Your task to perform on an android device: Add "logitech g502" to the cart on newegg.com, then select checkout. Image 0: 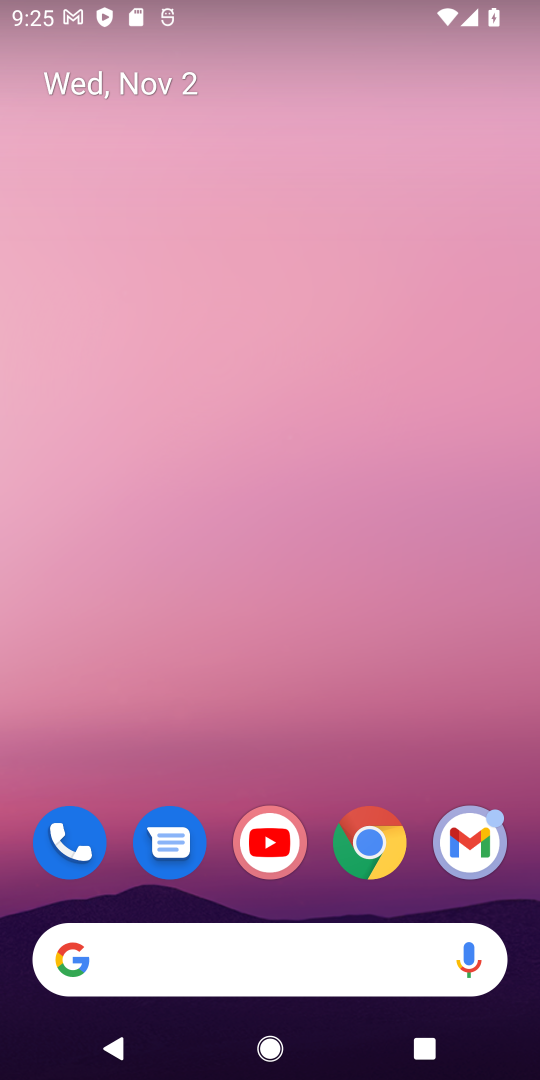
Step 0: drag from (319, 823) to (441, 193)
Your task to perform on an android device: Add "logitech g502" to the cart on newegg.com, then select checkout. Image 1: 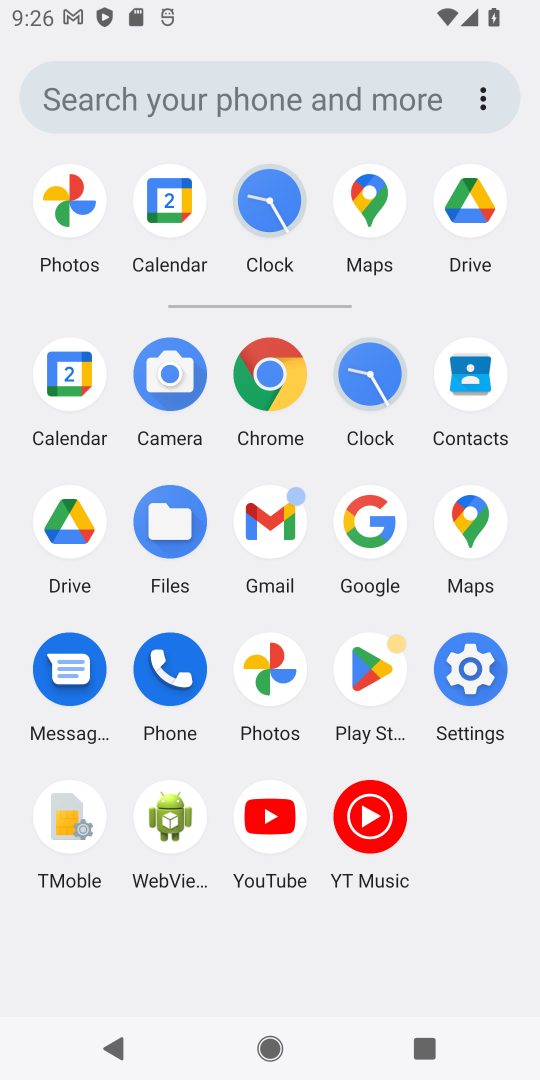
Step 1: click (357, 540)
Your task to perform on an android device: Add "logitech g502" to the cart on newegg.com, then select checkout. Image 2: 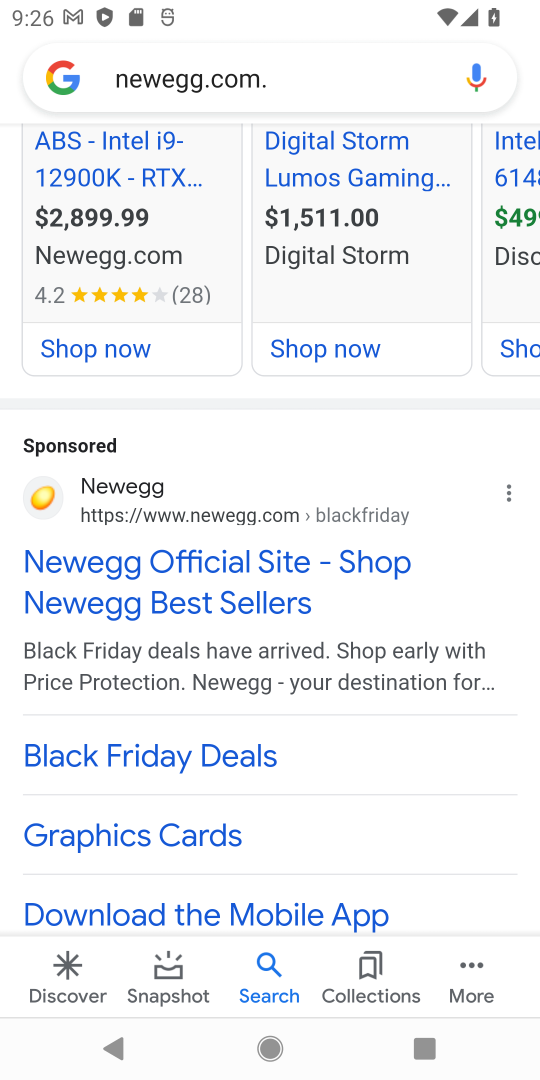
Step 2: drag from (203, 151) to (200, 714)
Your task to perform on an android device: Add "logitech g502" to the cart on newegg.com, then select checkout. Image 3: 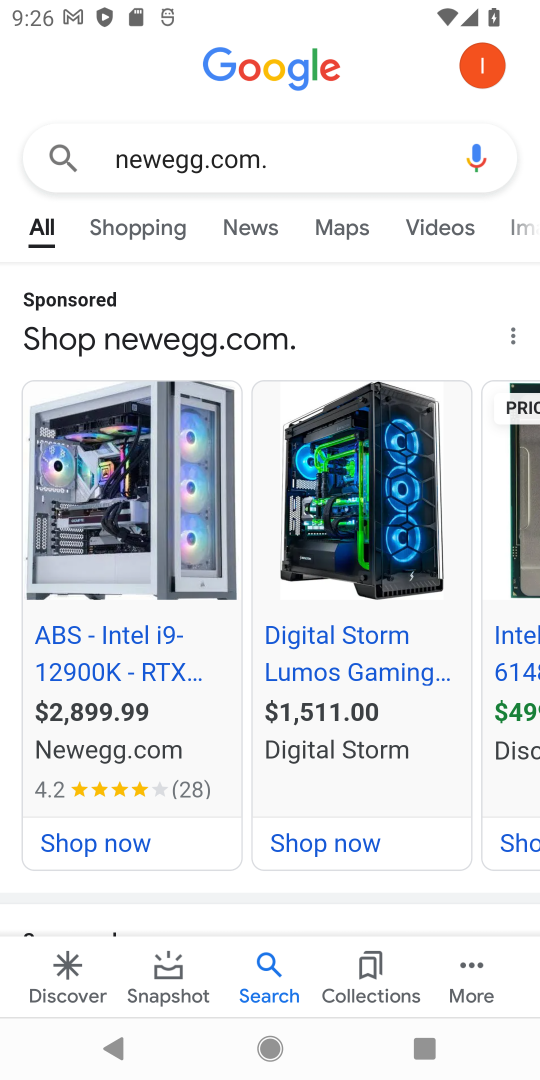
Step 3: click (193, 149)
Your task to perform on an android device: Add "logitech g502" to the cart on newegg.com, then select checkout. Image 4: 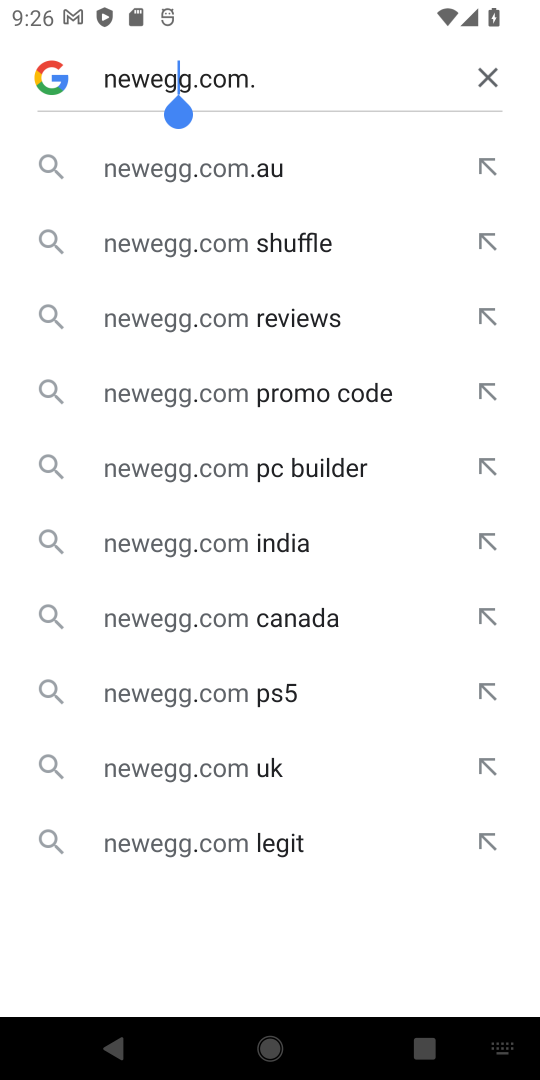
Step 4: click (474, 72)
Your task to perform on an android device: Add "logitech g502" to the cart on newegg.com, then select checkout. Image 5: 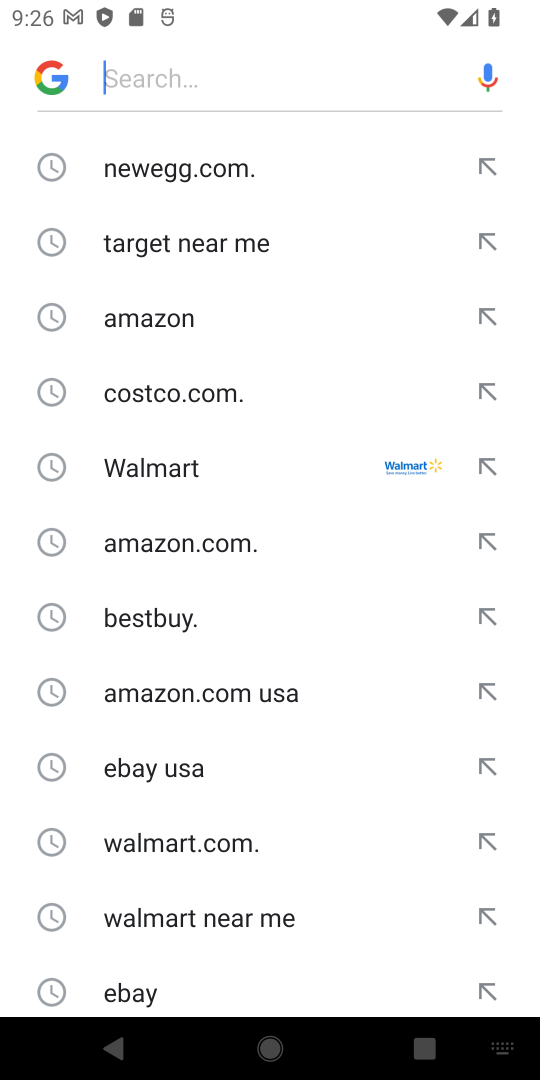
Step 5: click (177, 159)
Your task to perform on an android device: Add "logitech g502" to the cart on newegg.com, then select checkout. Image 6: 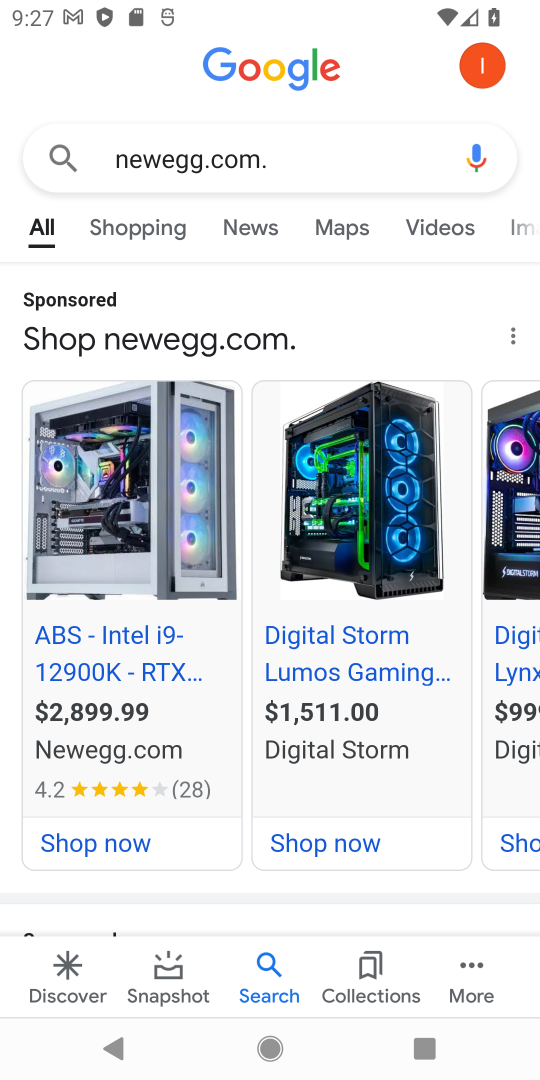
Step 6: drag from (131, 845) to (219, 284)
Your task to perform on an android device: Add "logitech g502" to the cart on newegg.com, then select checkout. Image 7: 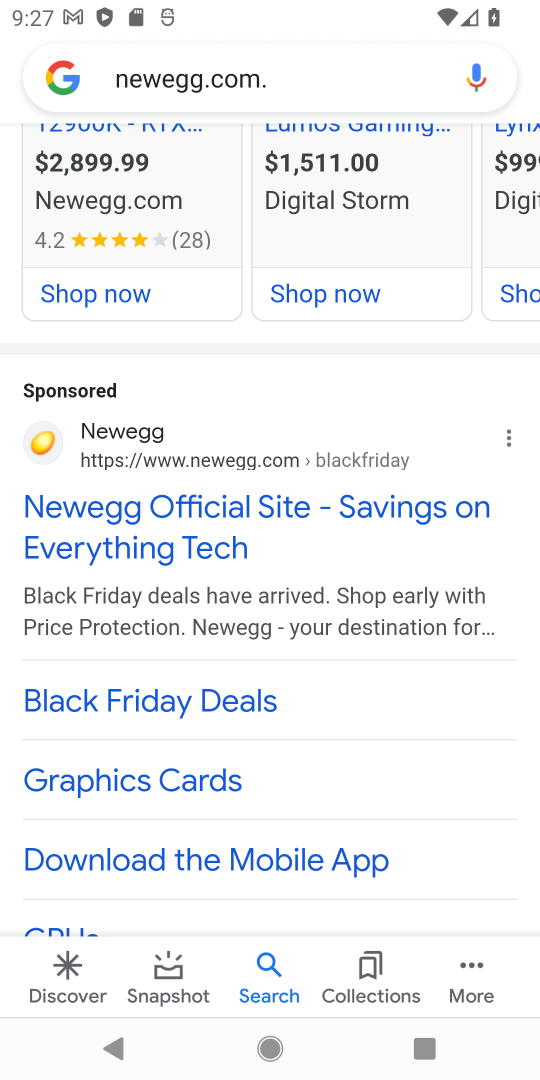
Step 7: click (43, 449)
Your task to perform on an android device: Add "logitech g502" to the cart on newegg.com, then select checkout. Image 8: 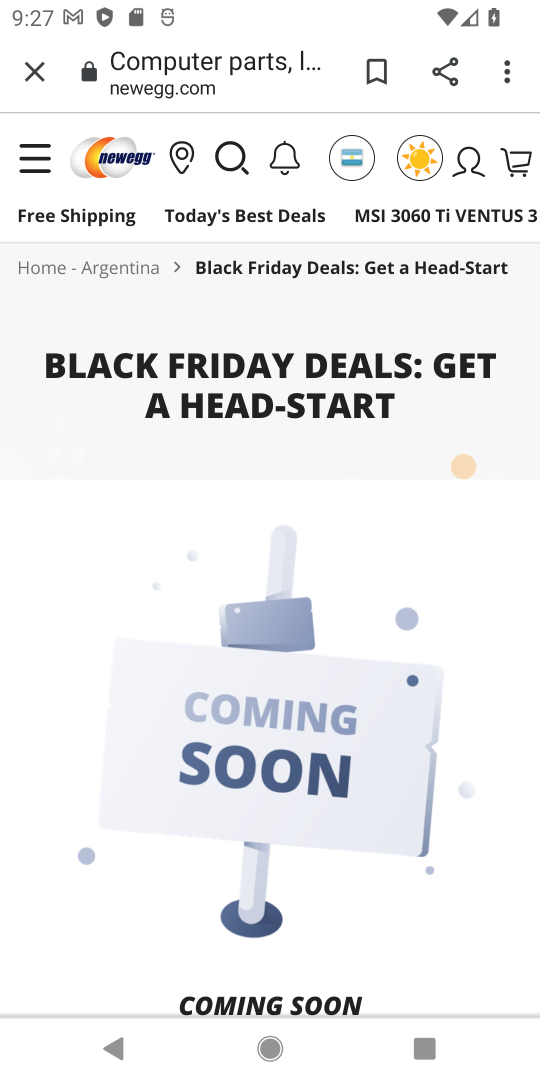
Step 8: click (233, 146)
Your task to perform on an android device: Add "logitech g502" to the cart on newegg.com, then select checkout. Image 9: 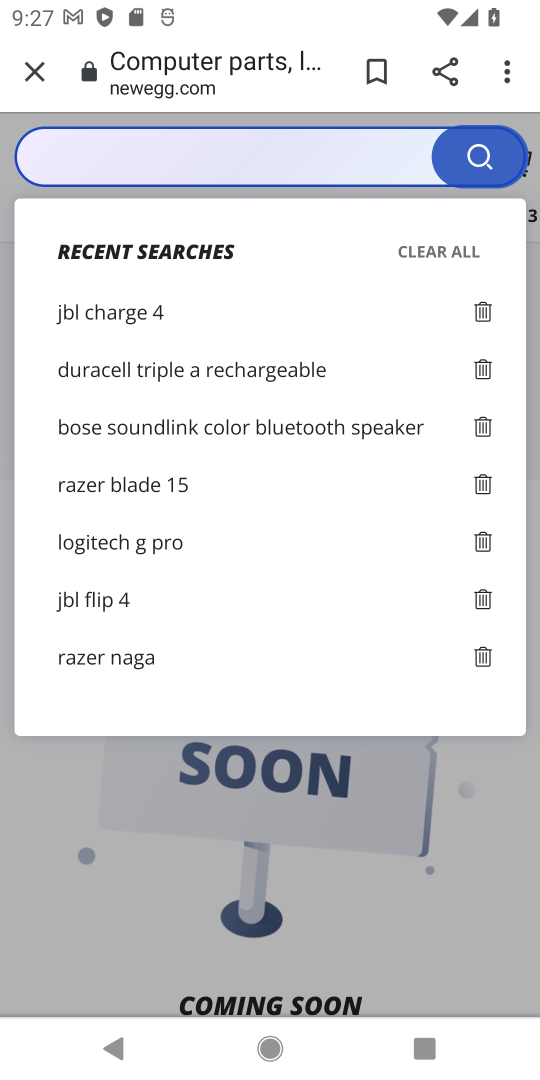
Step 9: click (194, 138)
Your task to perform on an android device: Add "logitech g502" to the cart on newegg.com, then select checkout. Image 10: 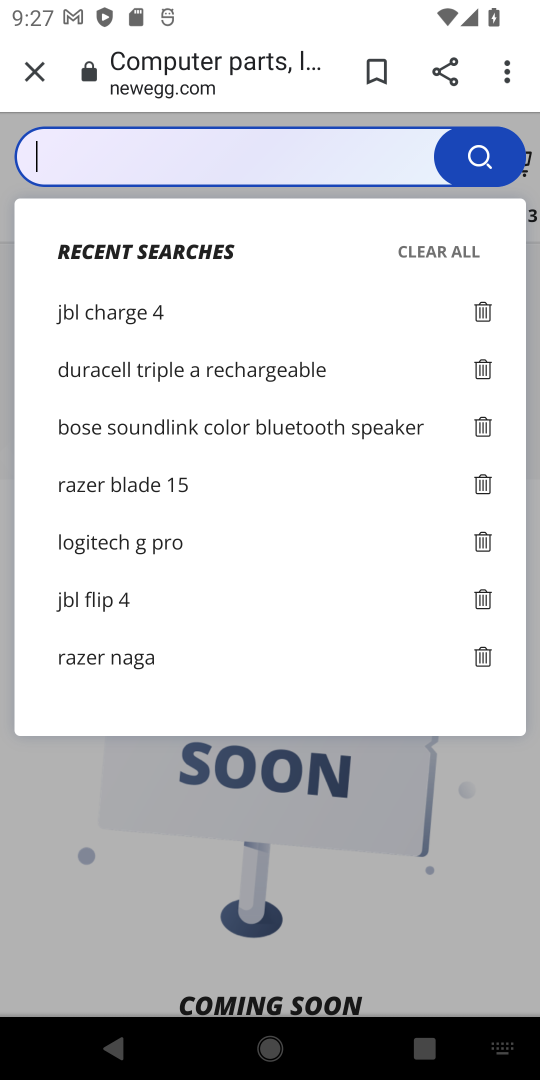
Step 10: type "logitech g502 "
Your task to perform on an android device: Add "logitech g502" to the cart on newegg.com, then select checkout. Image 11: 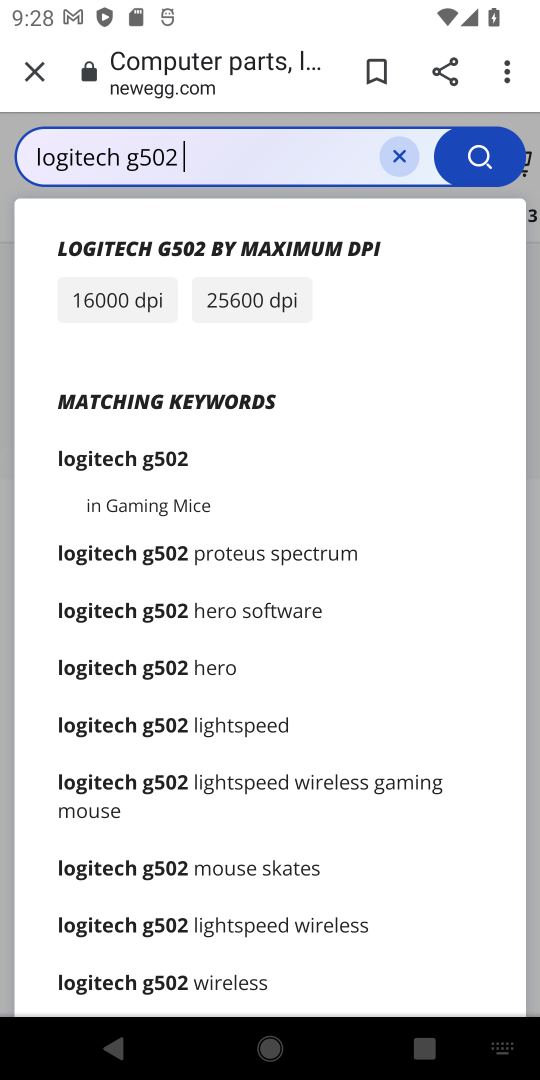
Step 11: click (128, 458)
Your task to perform on an android device: Add "logitech g502" to the cart on newegg.com, then select checkout. Image 12: 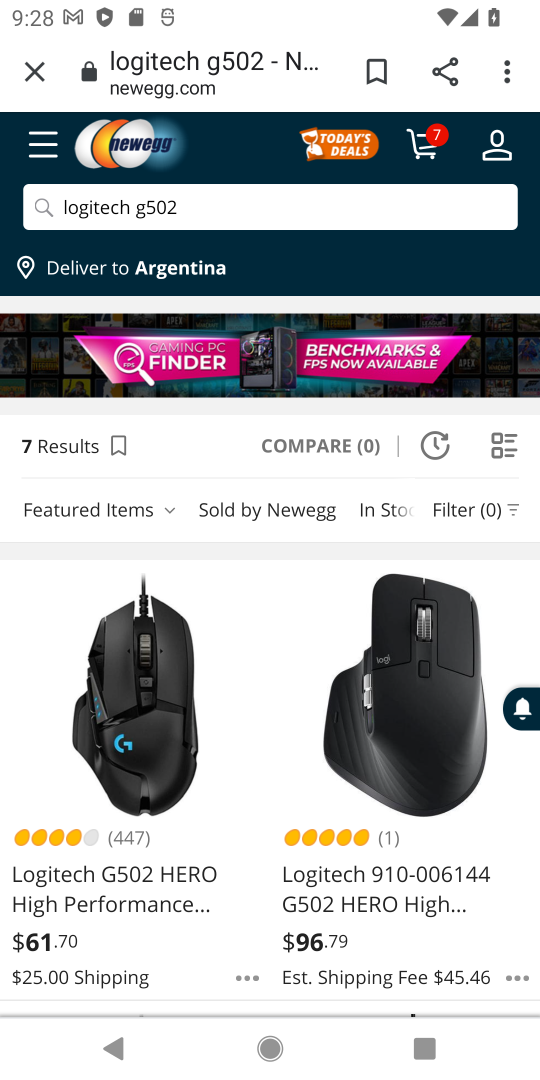
Step 12: click (113, 623)
Your task to perform on an android device: Add "logitech g502" to the cart on newegg.com, then select checkout. Image 13: 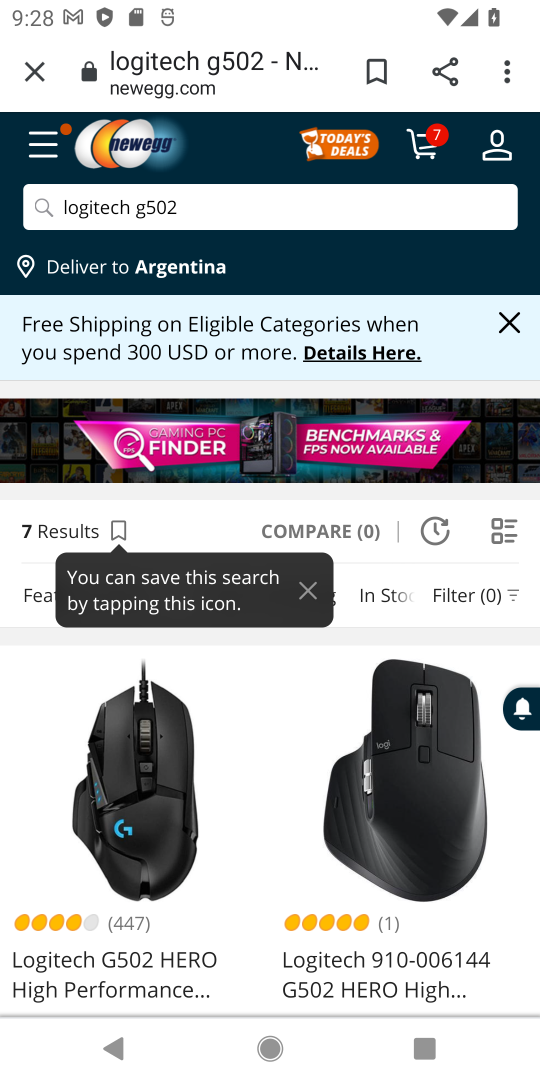
Step 13: click (90, 837)
Your task to perform on an android device: Add "logitech g502" to the cart on newegg.com, then select checkout. Image 14: 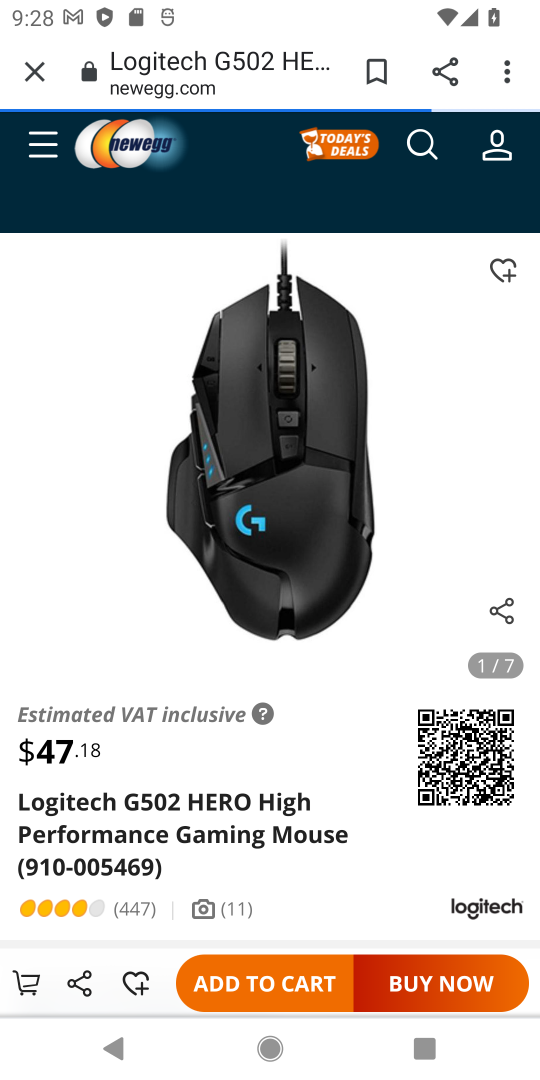
Step 14: drag from (92, 951) to (258, 541)
Your task to perform on an android device: Add "logitech g502" to the cart on newegg.com, then select checkout. Image 15: 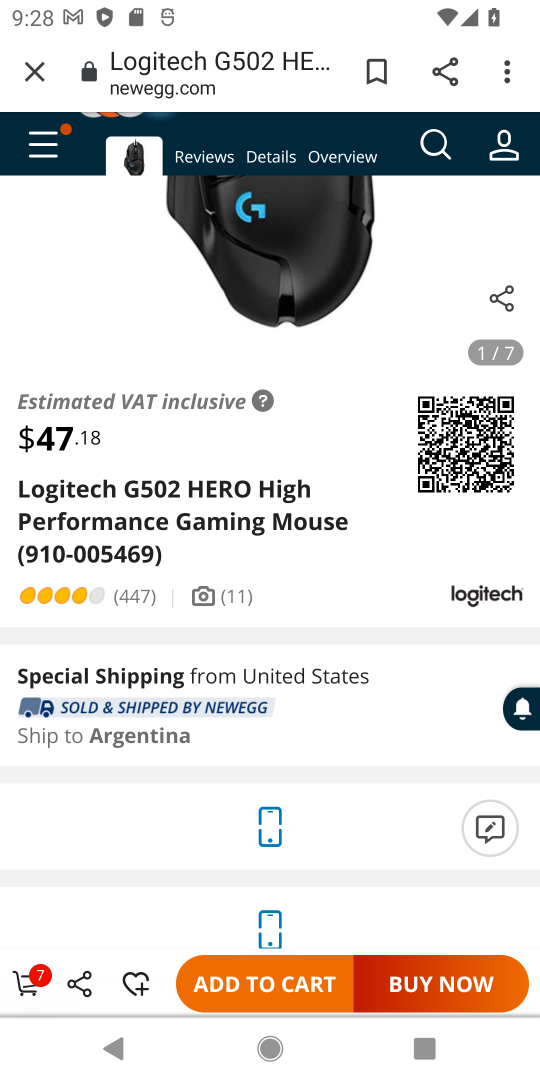
Step 15: click (271, 965)
Your task to perform on an android device: Add "logitech g502" to the cart on newegg.com, then select checkout. Image 16: 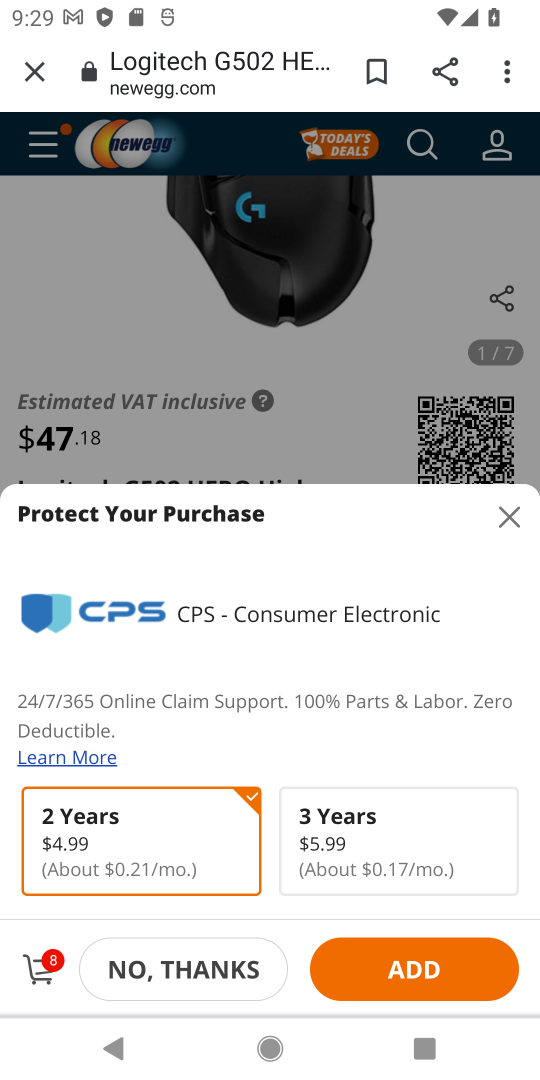
Step 16: click (391, 967)
Your task to perform on an android device: Add "logitech g502" to the cart on newegg.com, then select checkout. Image 17: 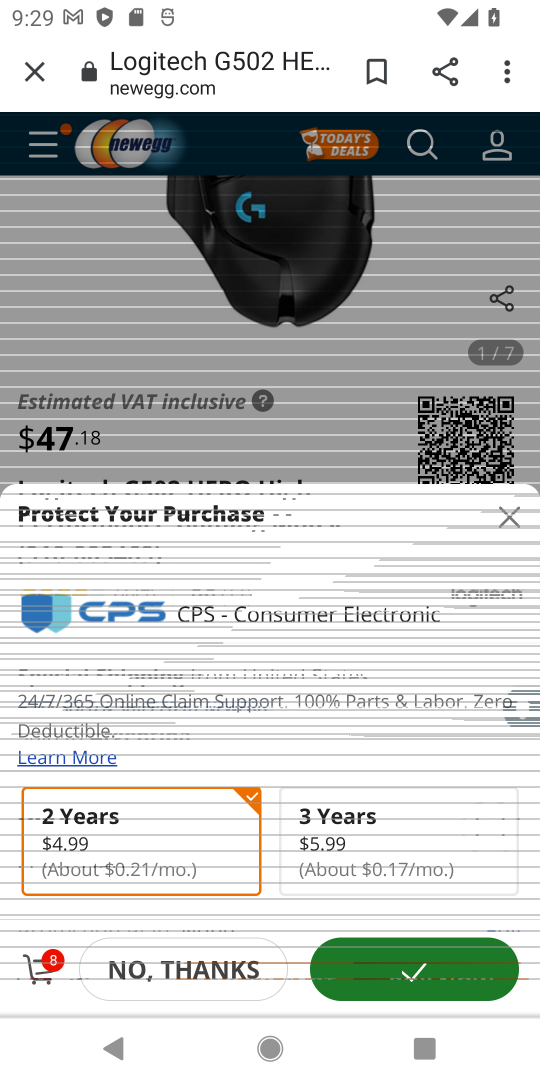
Step 17: task complete